Your task to perform on an android device: Go to battery settings Image 0: 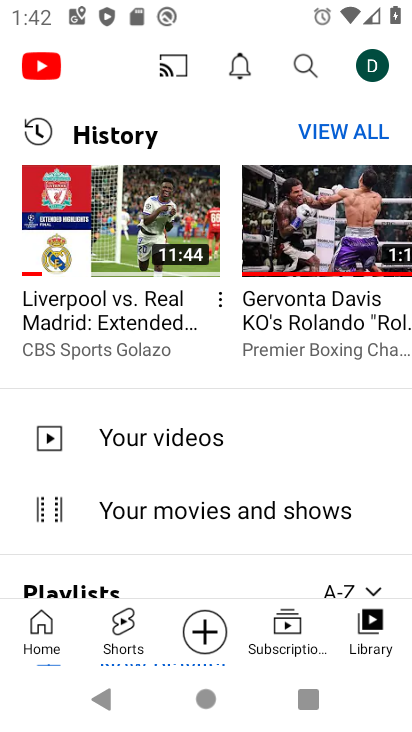
Step 0: press home button
Your task to perform on an android device: Go to battery settings Image 1: 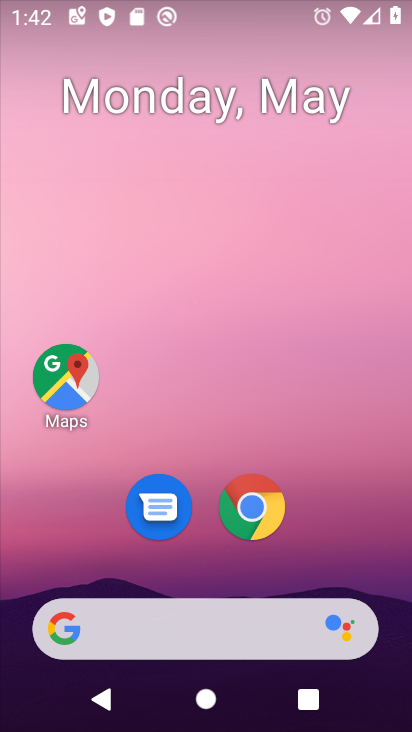
Step 1: drag from (231, 730) to (248, 6)
Your task to perform on an android device: Go to battery settings Image 2: 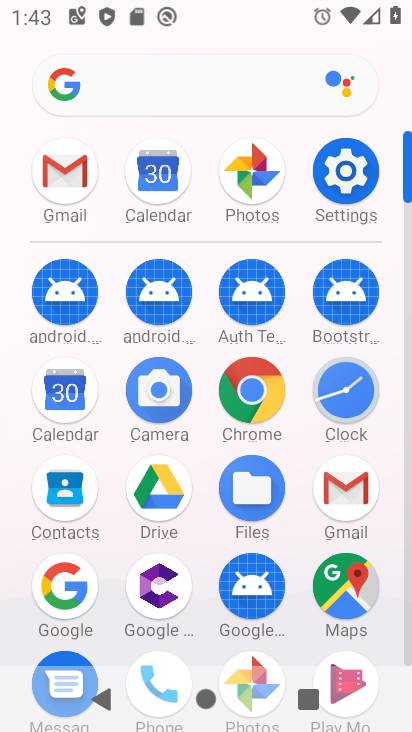
Step 2: click (344, 170)
Your task to perform on an android device: Go to battery settings Image 3: 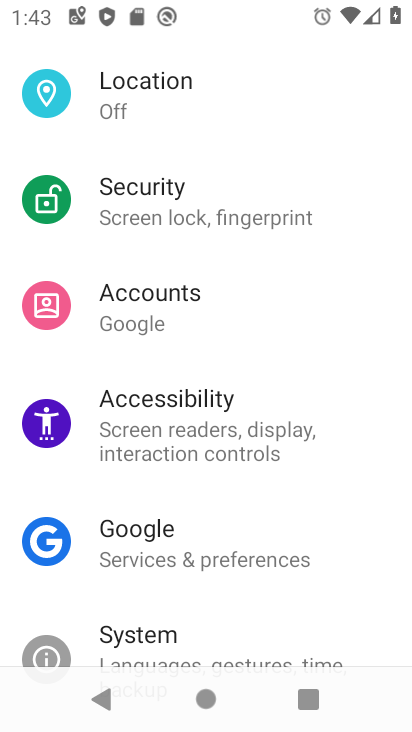
Step 3: drag from (184, 139) to (153, 561)
Your task to perform on an android device: Go to battery settings Image 4: 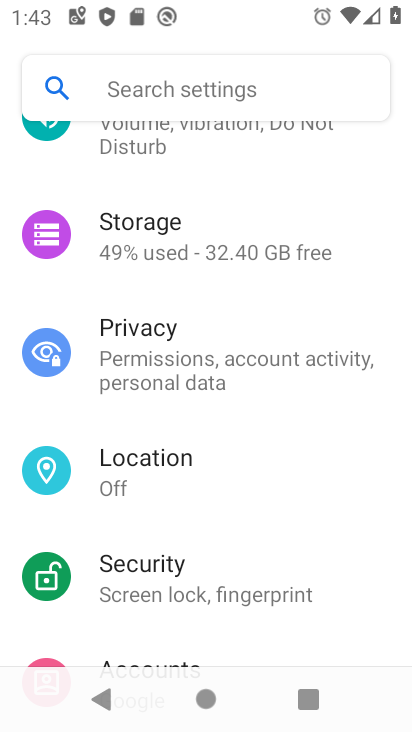
Step 4: drag from (222, 151) to (205, 538)
Your task to perform on an android device: Go to battery settings Image 5: 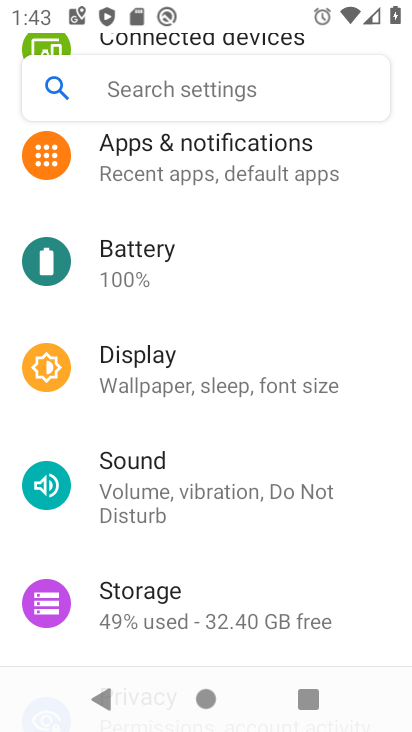
Step 5: click (142, 241)
Your task to perform on an android device: Go to battery settings Image 6: 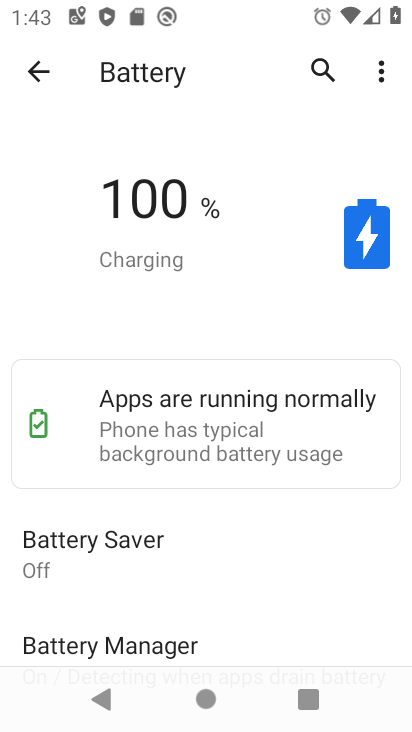
Step 6: task complete